Your task to perform on an android device: open app "Spotify: Music and Podcasts" Image 0: 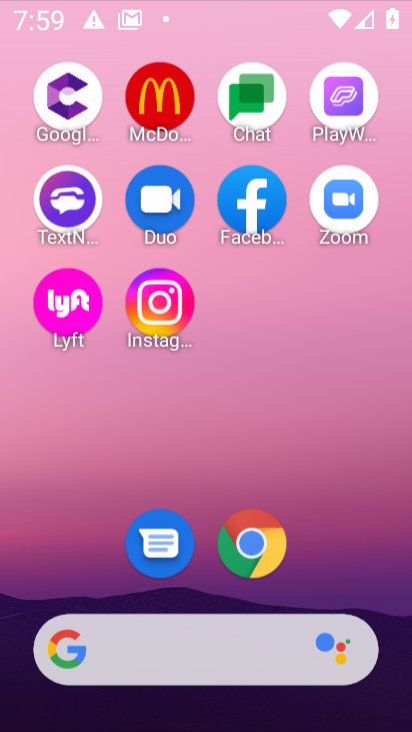
Step 0: press home button
Your task to perform on an android device: open app "Spotify: Music and Podcasts" Image 1: 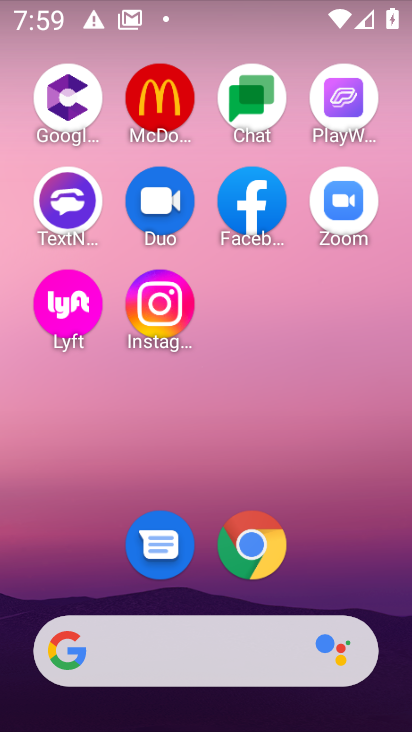
Step 1: drag from (375, 575) to (377, 68)
Your task to perform on an android device: open app "Spotify: Music and Podcasts" Image 2: 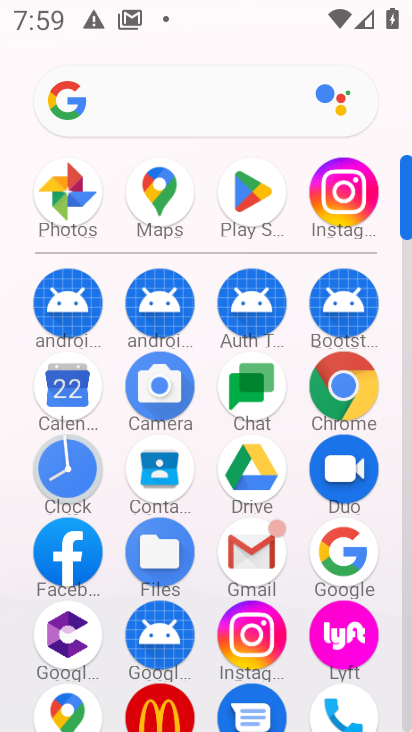
Step 2: click (249, 202)
Your task to perform on an android device: open app "Spotify: Music and Podcasts" Image 3: 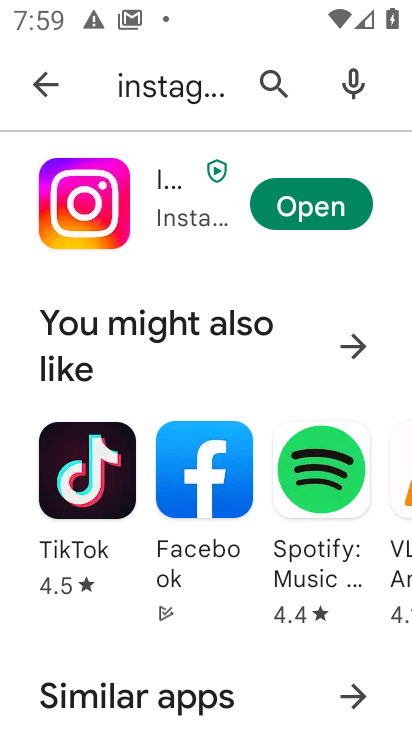
Step 3: press back button
Your task to perform on an android device: open app "Spotify: Music and Podcasts" Image 4: 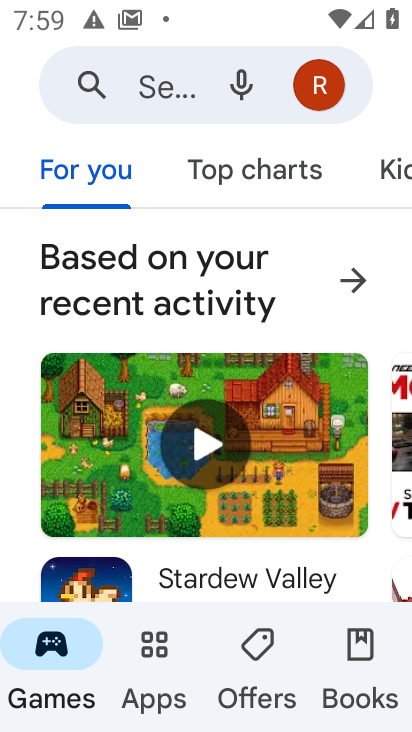
Step 4: click (139, 82)
Your task to perform on an android device: open app "Spotify: Music and Podcasts" Image 5: 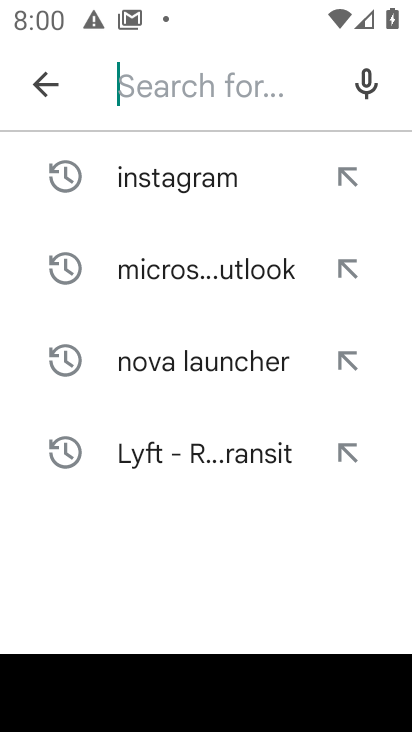
Step 5: type "Spotify: Music and Podcasts"
Your task to perform on an android device: open app "Spotify: Music and Podcasts" Image 6: 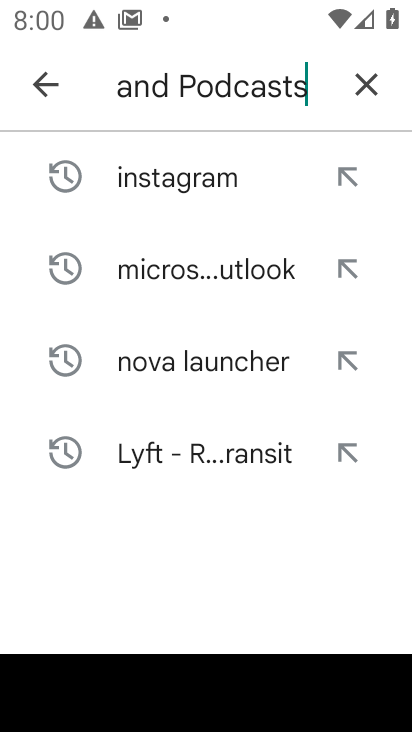
Step 6: press enter
Your task to perform on an android device: open app "Spotify: Music and Podcasts" Image 7: 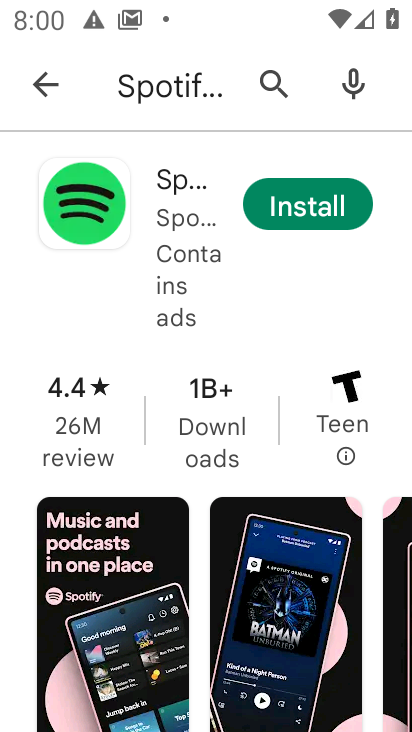
Step 7: task complete